Your task to perform on an android device: Open Youtube and go to the subscriptions tab Image 0: 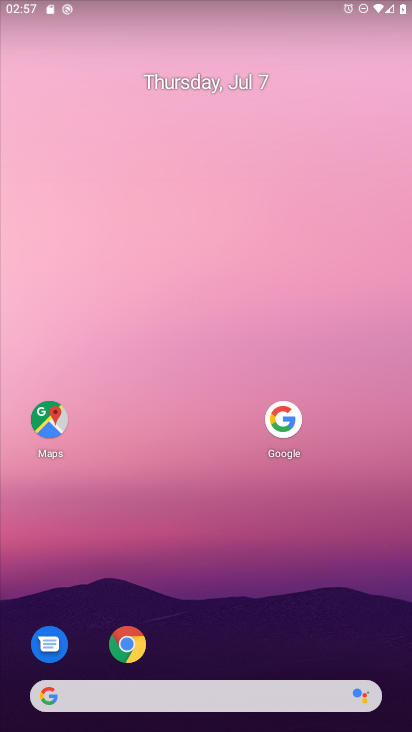
Step 0: drag from (120, 694) to (302, 126)
Your task to perform on an android device: Open Youtube and go to the subscriptions tab Image 1: 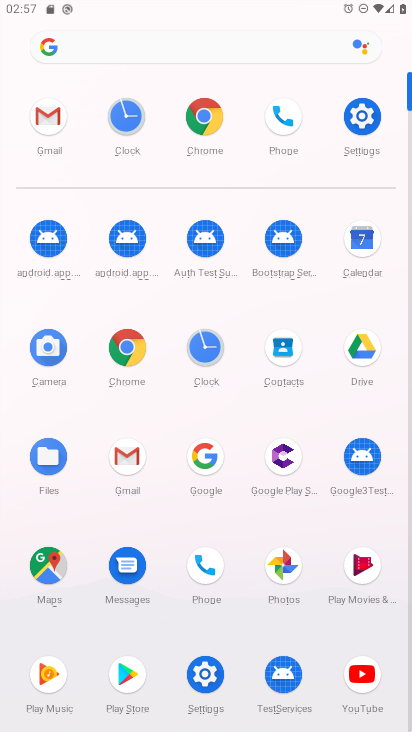
Step 1: click (374, 673)
Your task to perform on an android device: Open Youtube and go to the subscriptions tab Image 2: 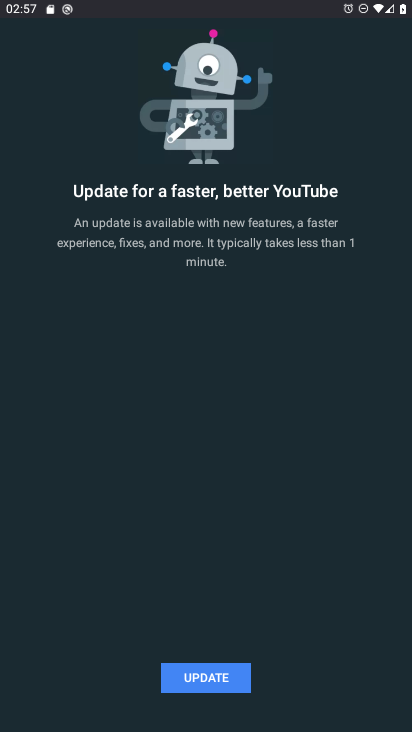
Step 2: click (186, 676)
Your task to perform on an android device: Open Youtube and go to the subscriptions tab Image 3: 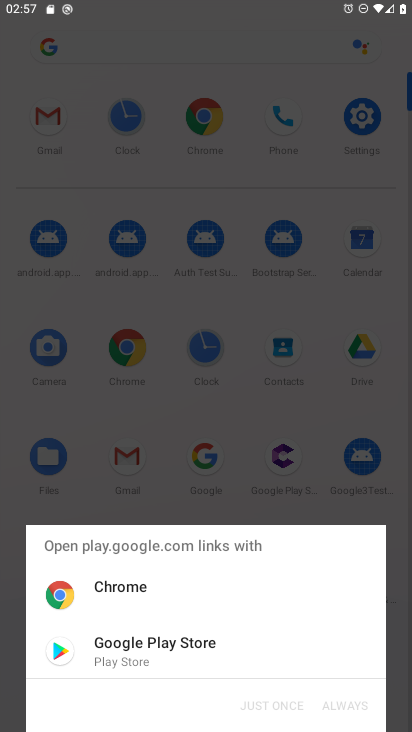
Step 3: click (152, 649)
Your task to perform on an android device: Open Youtube and go to the subscriptions tab Image 4: 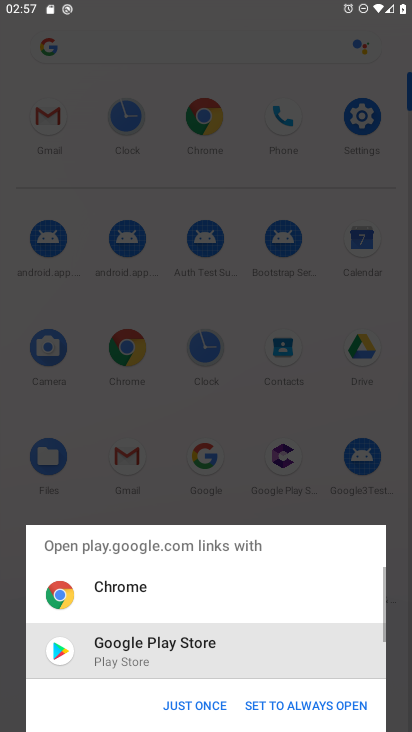
Step 4: click (210, 709)
Your task to perform on an android device: Open Youtube and go to the subscriptions tab Image 5: 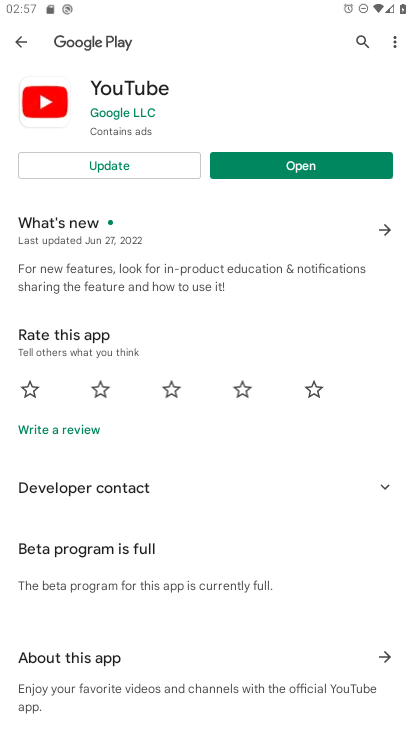
Step 5: click (139, 162)
Your task to perform on an android device: Open Youtube and go to the subscriptions tab Image 6: 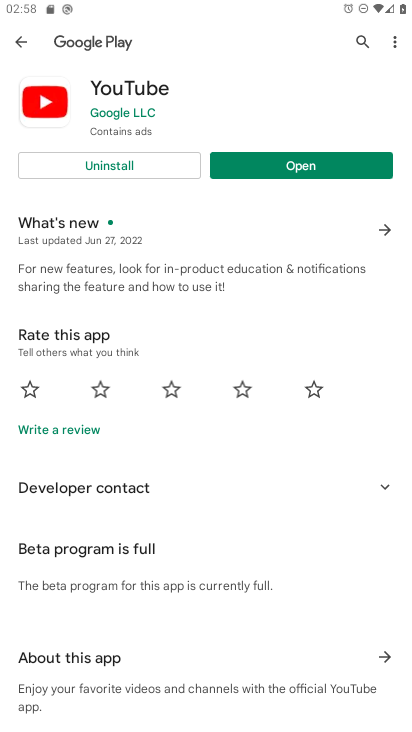
Step 6: click (297, 164)
Your task to perform on an android device: Open Youtube and go to the subscriptions tab Image 7: 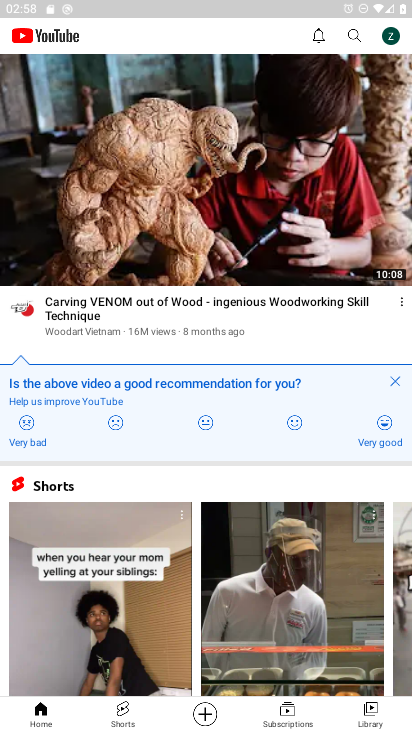
Step 7: click (286, 712)
Your task to perform on an android device: Open Youtube and go to the subscriptions tab Image 8: 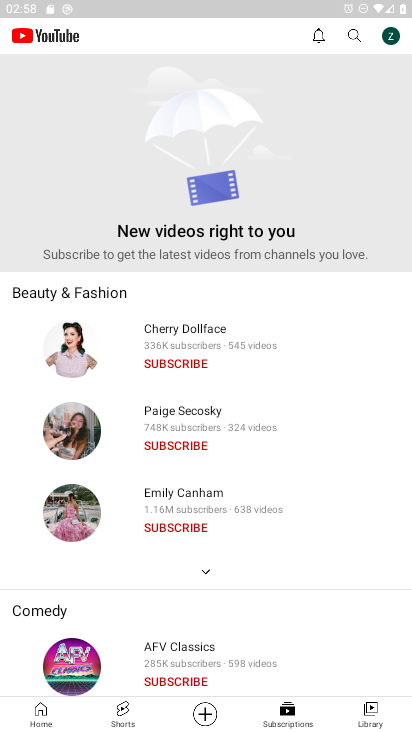
Step 8: task complete